Your task to perform on an android device: Look up the best rated coffee maker on Lowe's. Image 0: 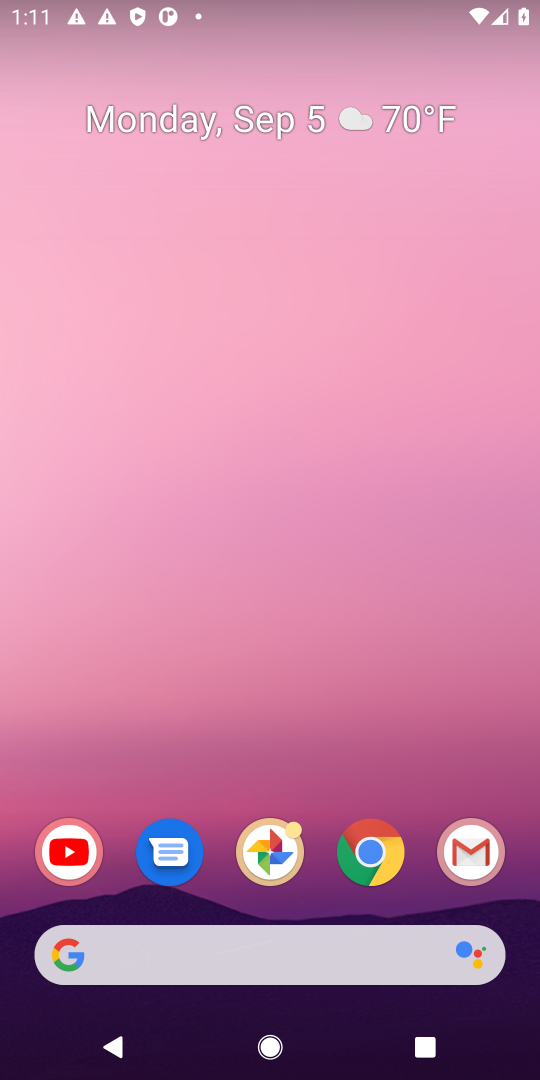
Step 0: click (374, 852)
Your task to perform on an android device: Look up the best rated coffee maker on Lowe's. Image 1: 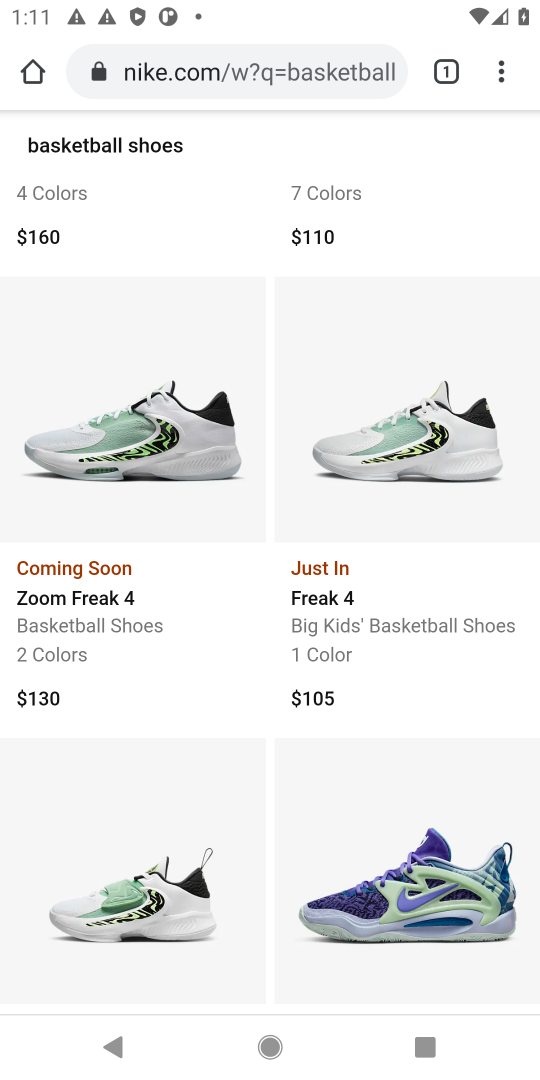
Step 1: click (298, 50)
Your task to perform on an android device: Look up the best rated coffee maker on Lowe's. Image 2: 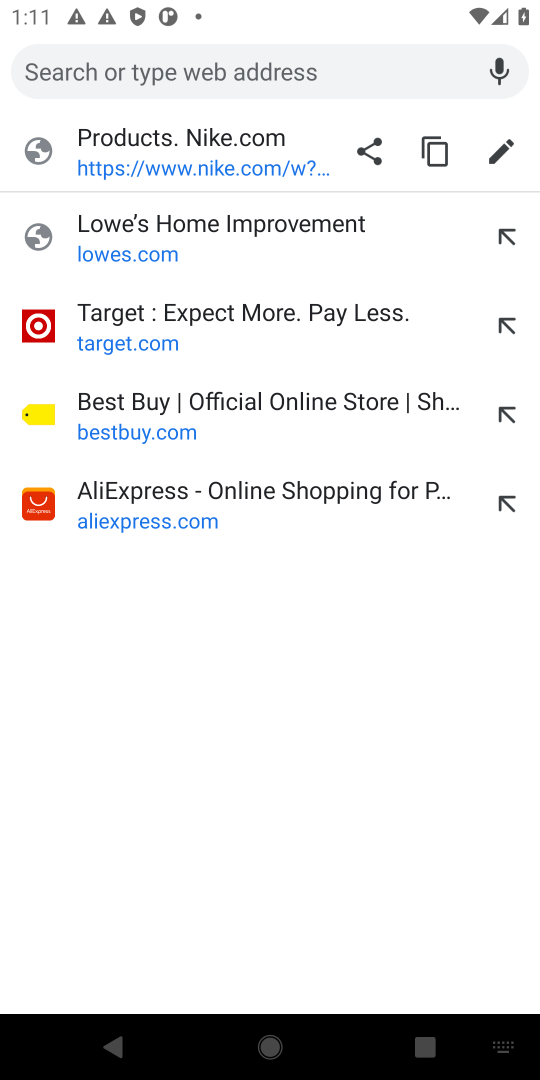
Step 2: type "Lowe's"
Your task to perform on an android device: Look up the best rated coffee maker on Lowe's. Image 3: 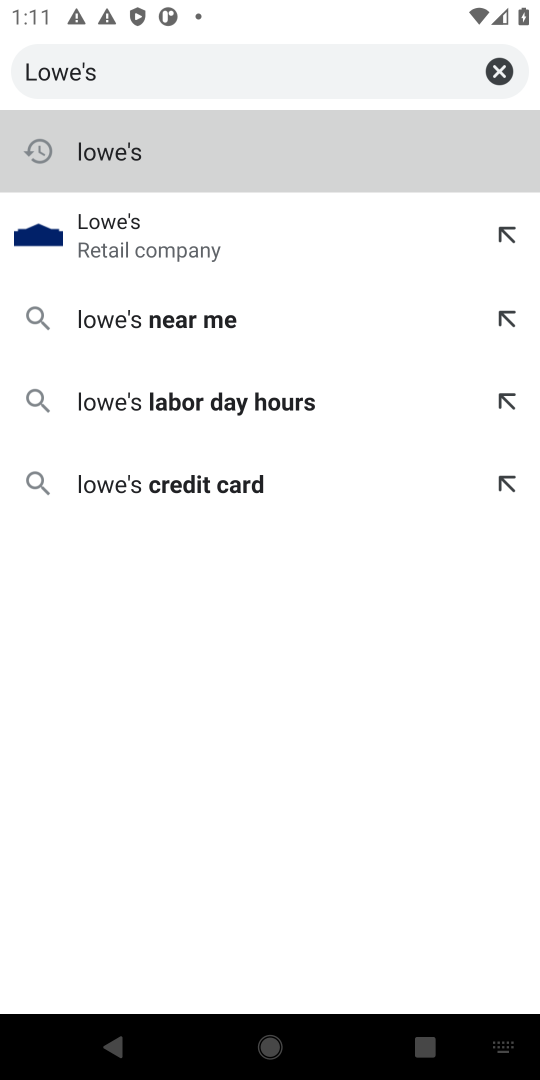
Step 3: click (112, 227)
Your task to perform on an android device: Look up the best rated coffee maker on Lowe's. Image 4: 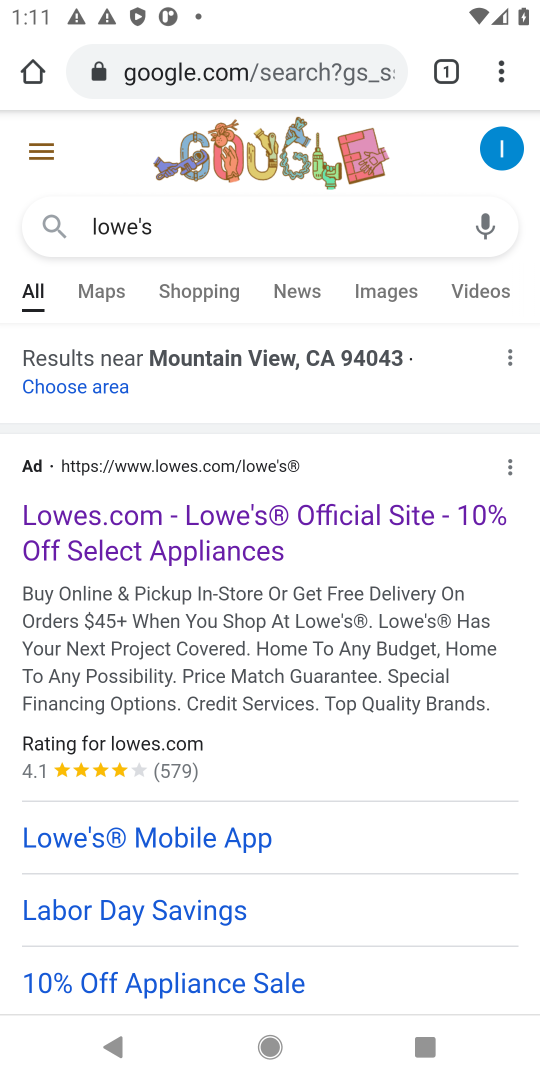
Step 4: click (74, 516)
Your task to perform on an android device: Look up the best rated coffee maker on Lowe's. Image 5: 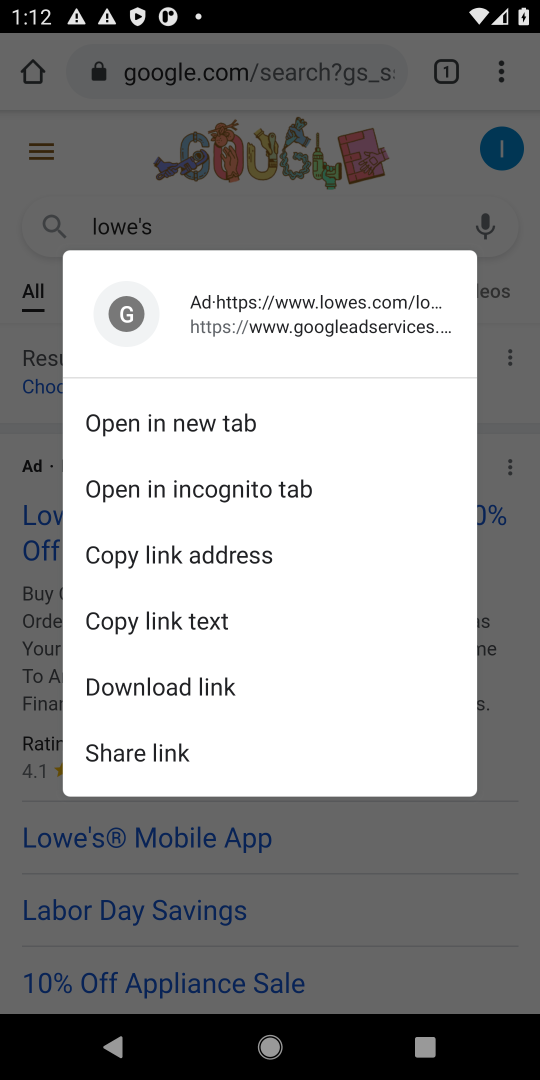
Step 5: click (31, 531)
Your task to perform on an android device: Look up the best rated coffee maker on Lowe's. Image 6: 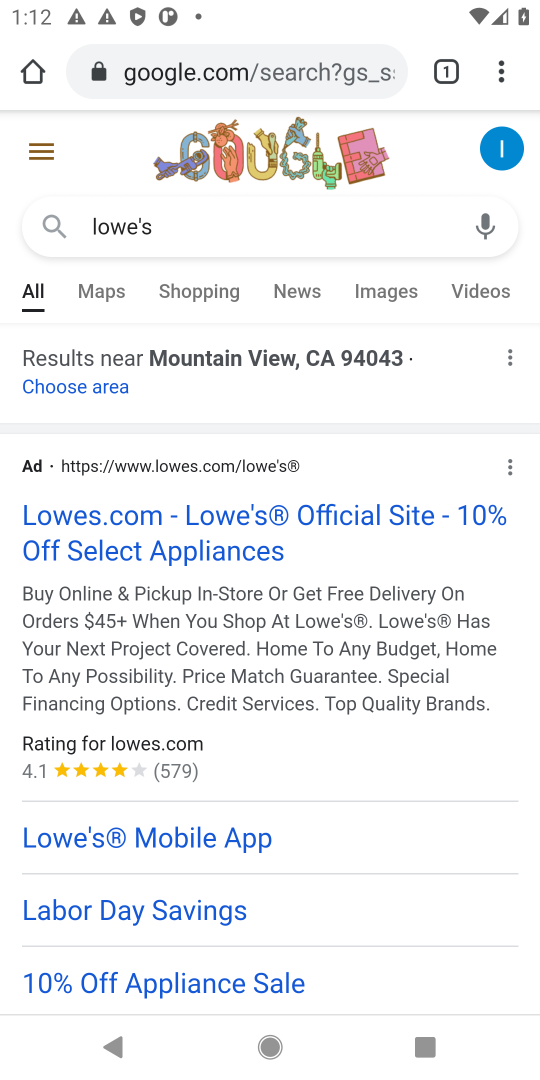
Step 6: click (142, 518)
Your task to perform on an android device: Look up the best rated coffee maker on Lowe's. Image 7: 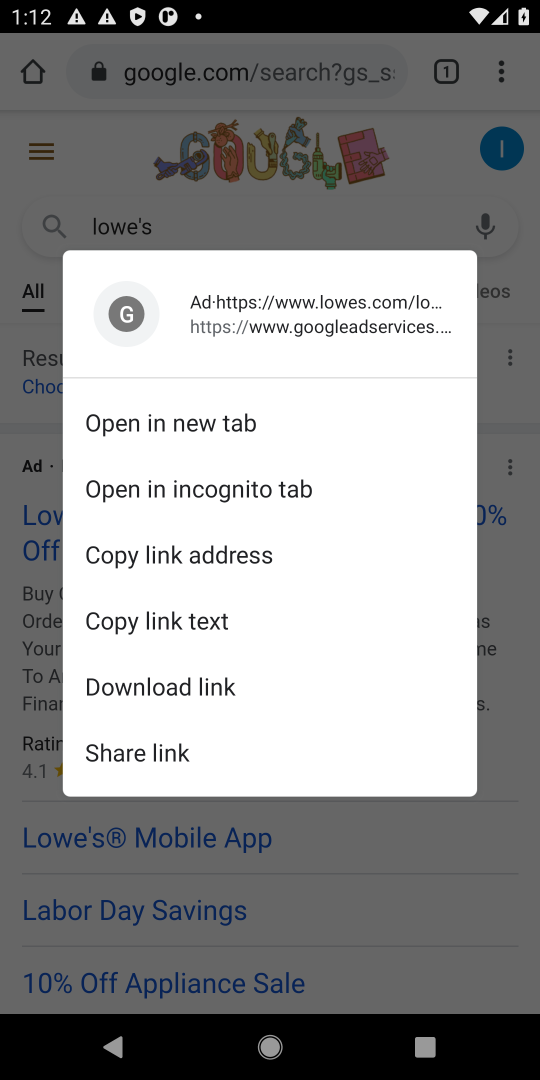
Step 7: click (8, 567)
Your task to perform on an android device: Look up the best rated coffee maker on Lowe's. Image 8: 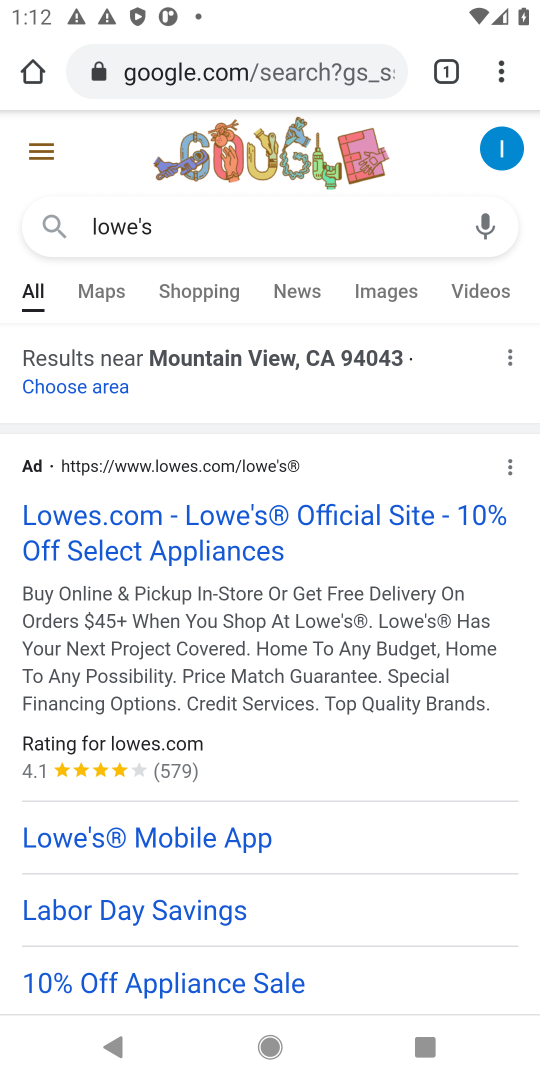
Step 8: click (122, 525)
Your task to perform on an android device: Look up the best rated coffee maker on Lowe's. Image 9: 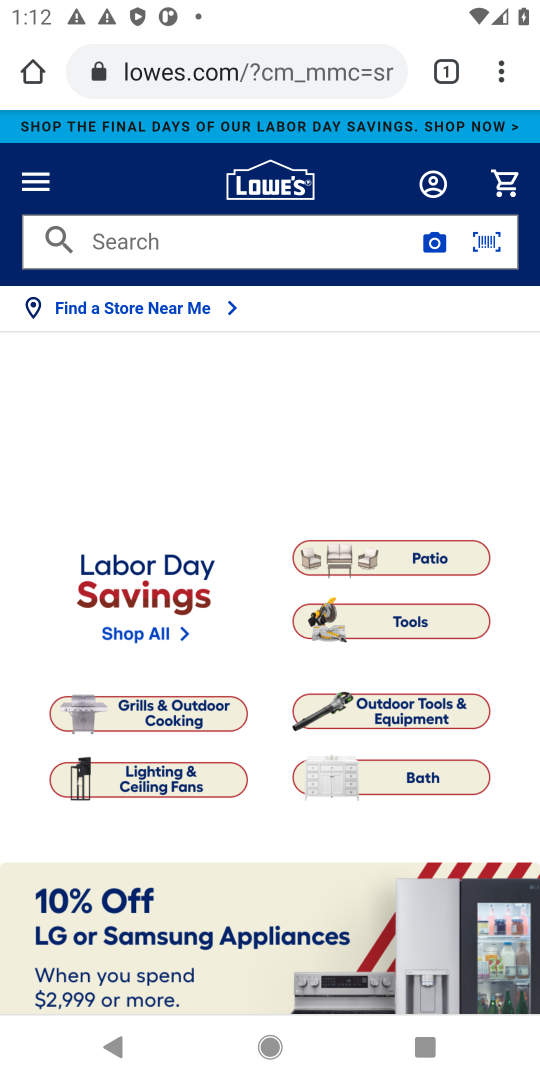
Step 9: click (144, 235)
Your task to perform on an android device: Look up the best rated coffee maker on Lowe's. Image 10: 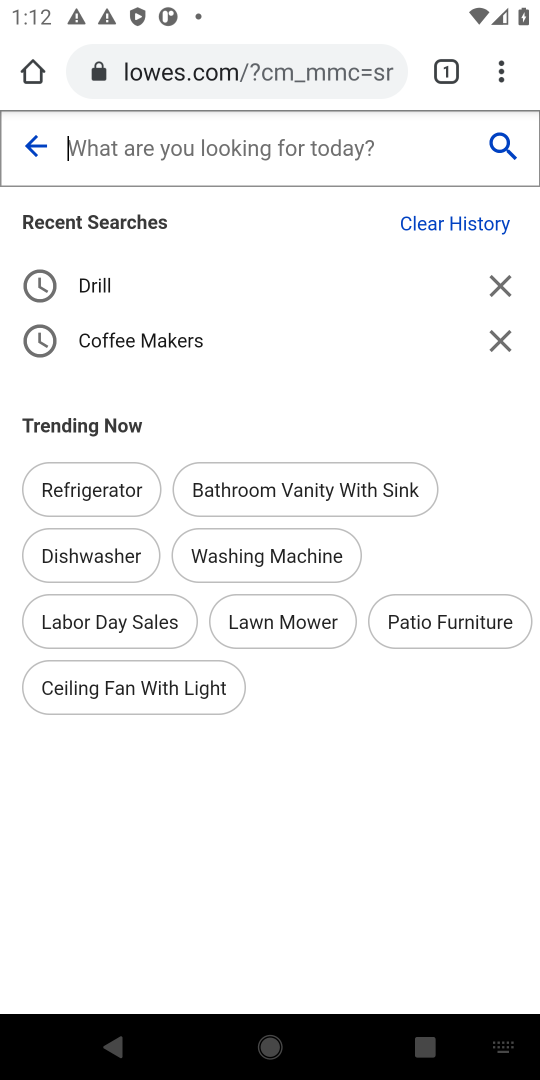
Step 10: type "coffee maker"
Your task to perform on an android device: Look up the best rated coffee maker on Lowe's. Image 11: 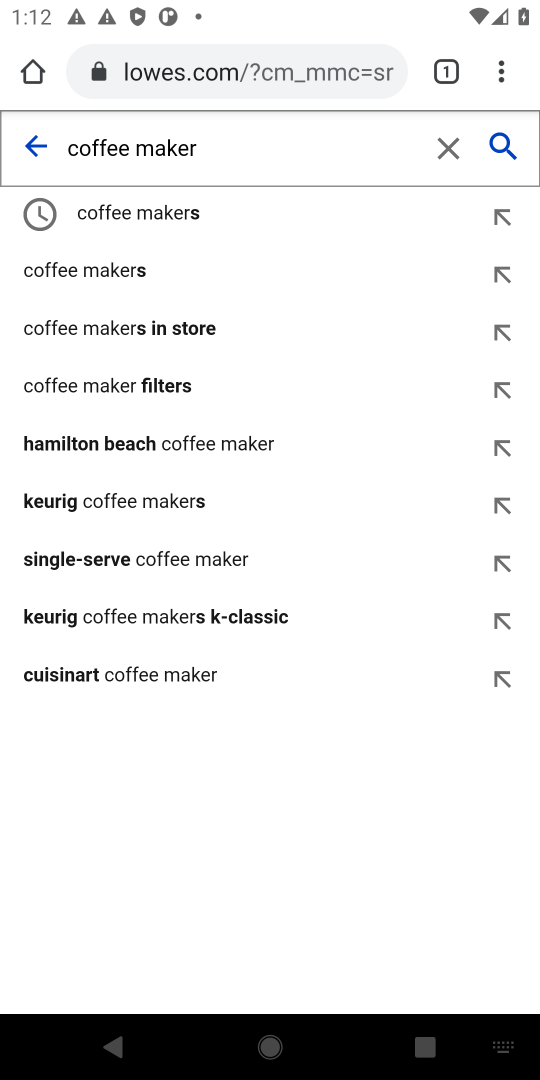
Step 11: click (143, 212)
Your task to perform on an android device: Look up the best rated coffee maker on Lowe's. Image 12: 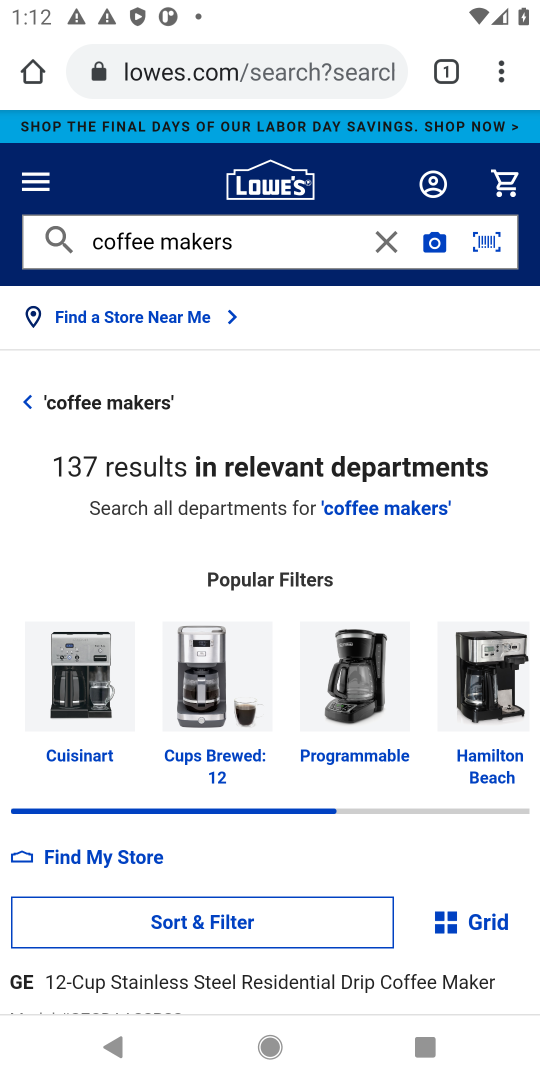
Step 12: click (56, 230)
Your task to perform on an android device: Look up the best rated coffee maker on Lowe's. Image 13: 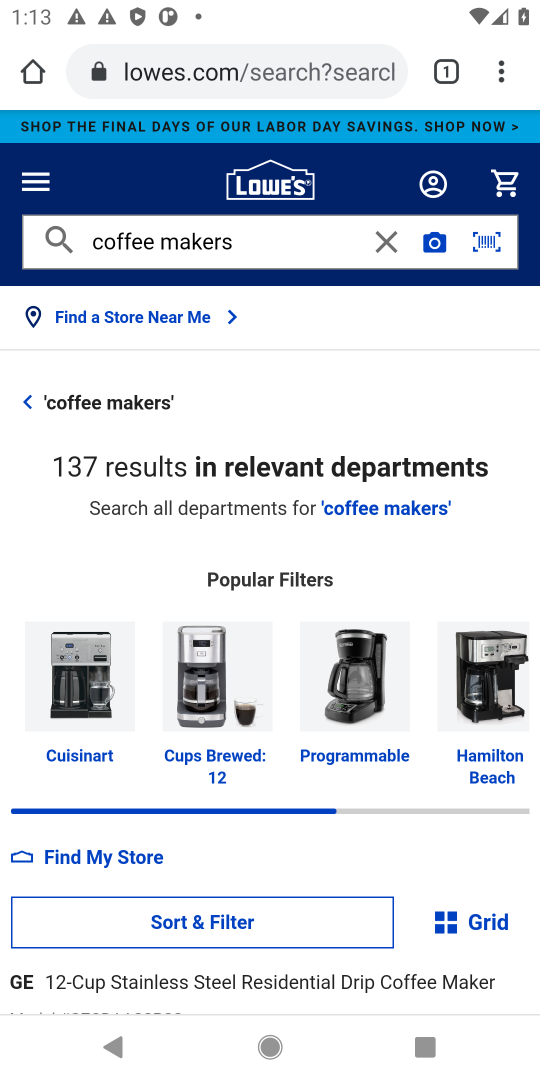
Step 13: click (201, 922)
Your task to perform on an android device: Look up the best rated coffee maker on Lowe's. Image 14: 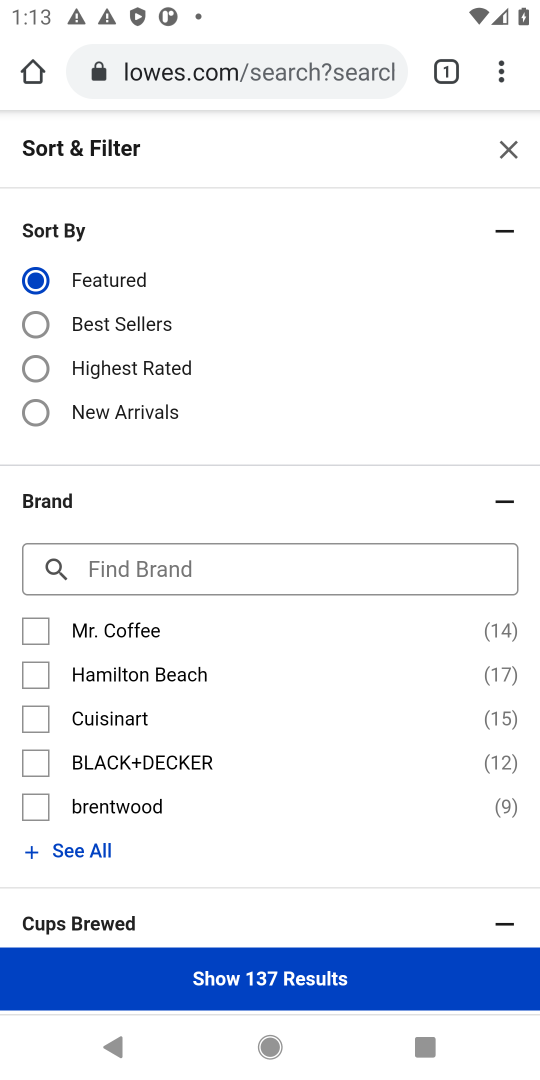
Step 14: click (43, 361)
Your task to perform on an android device: Look up the best rated coffee maker on Lowe's. Image 15: 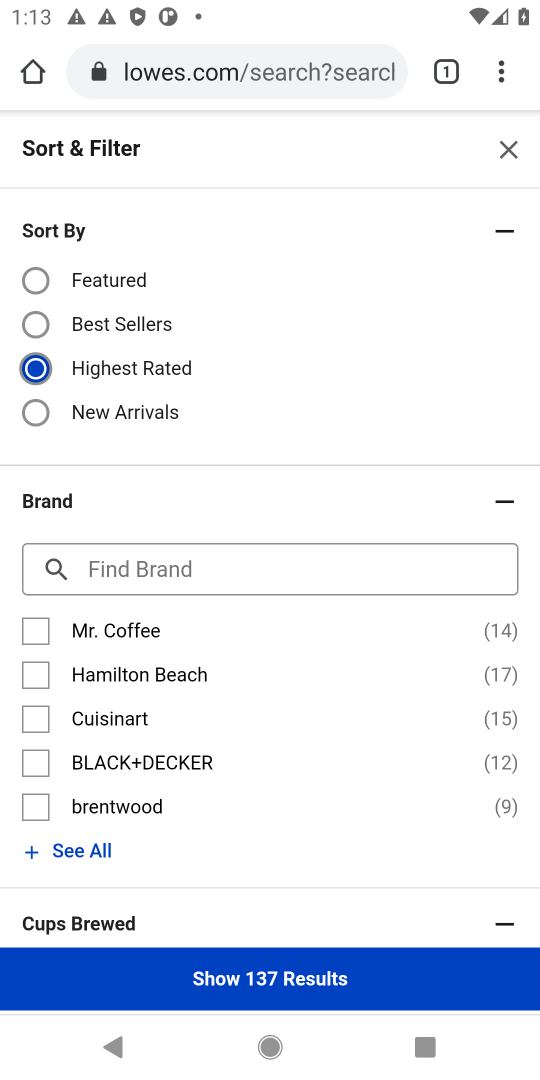
Step 15: click (264, 977)
Your task to perform on an android device: Look up the best rated coffee maker on Lowe's. Image 16: 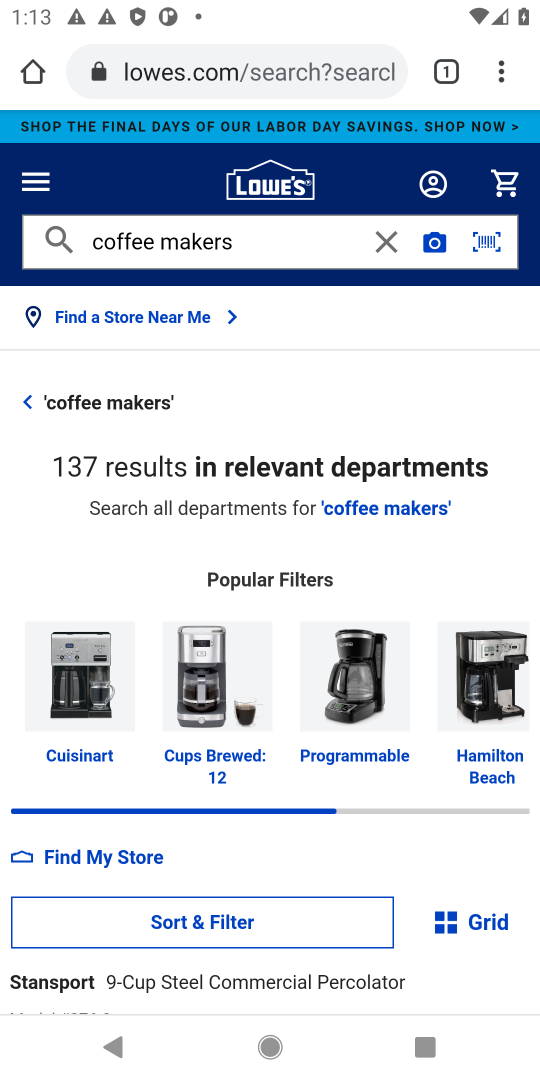
Step 16: task complete